Your task to perform on an android device: choose inbox layout in the gmail app Image 0: 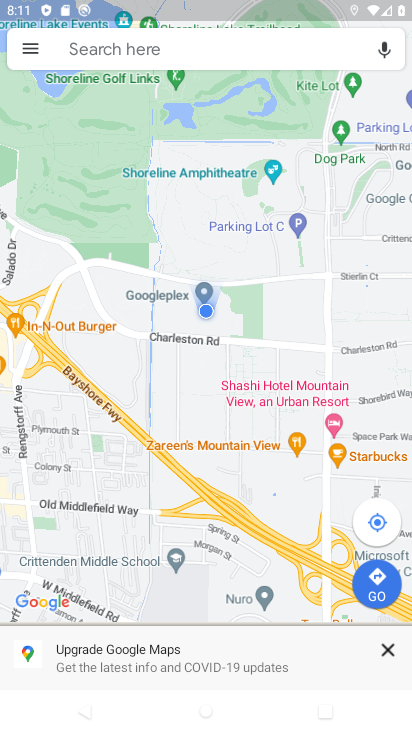
Step 0: press home button
Your task to perform on an android device: choose inbox layout in the gmail app Image 1: 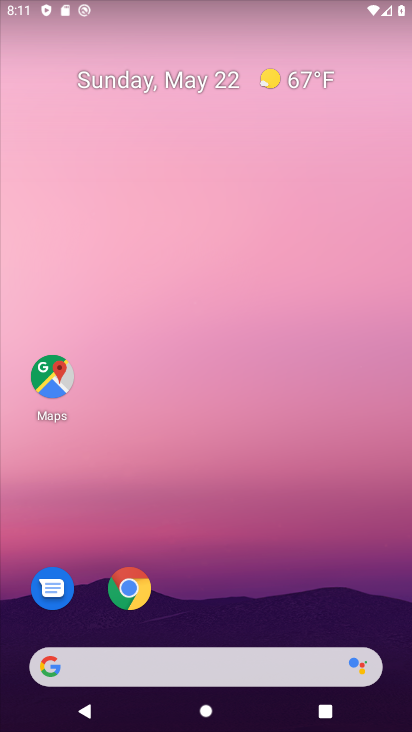
Step 1: drag from (202, 608) to (204, 178)
Your task to perform on an android device: choose inbox layout in the gmail app Image 2: 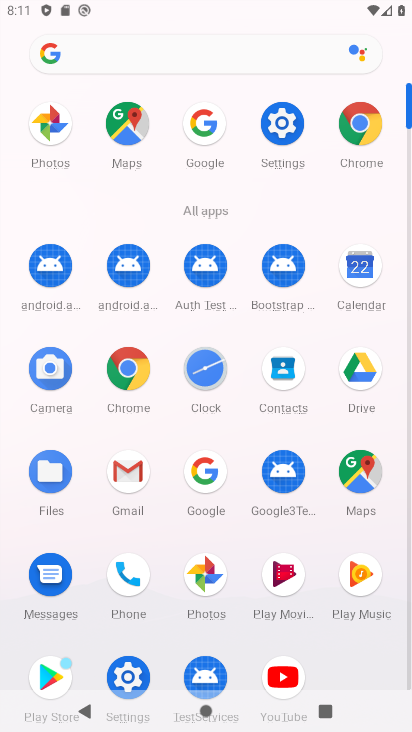
Step 2: drag from (172, 499) to (182, 288)
Your task to perform on an android device: choose inbox layout in the gmail app Image 3: 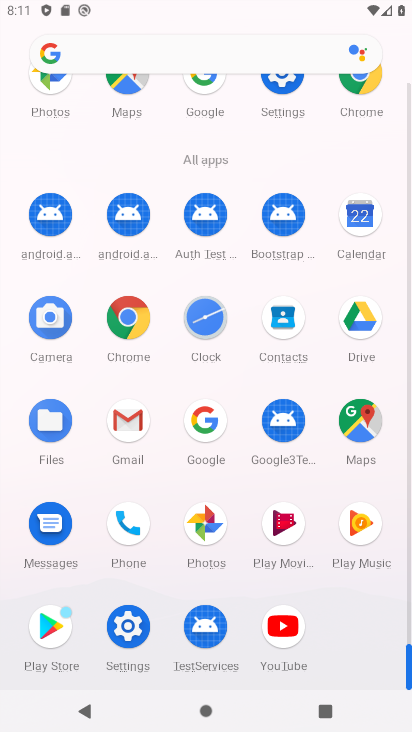
Step 3: drag from (182, 311) to (182, 482)
Your task to perform on an android device: choose inbox layout in the gmail app Image 4: 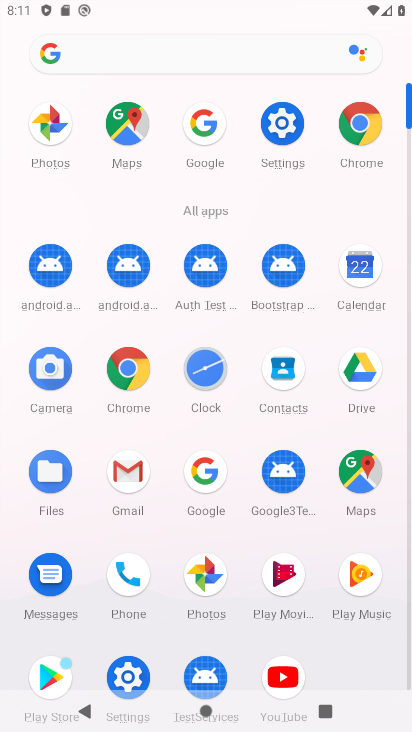
Step 4: click (133, 492)
Your task to perform on an android device: choose inbox layout in the gmail app Image 5: 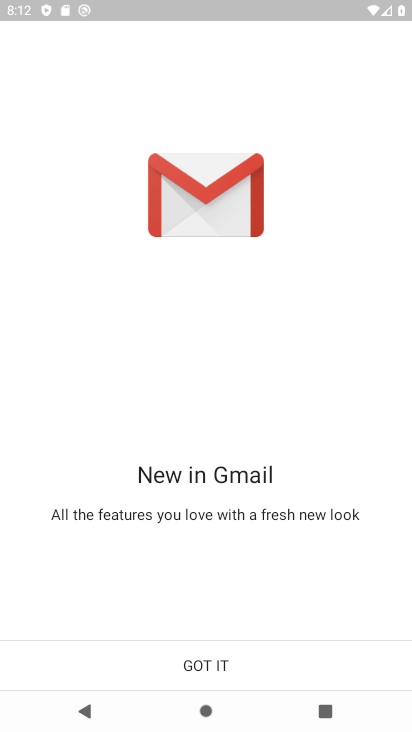
Step 5: click (200, 647)
Your task to perform on an android device: choose inbox layout in the gmail app Image 6: 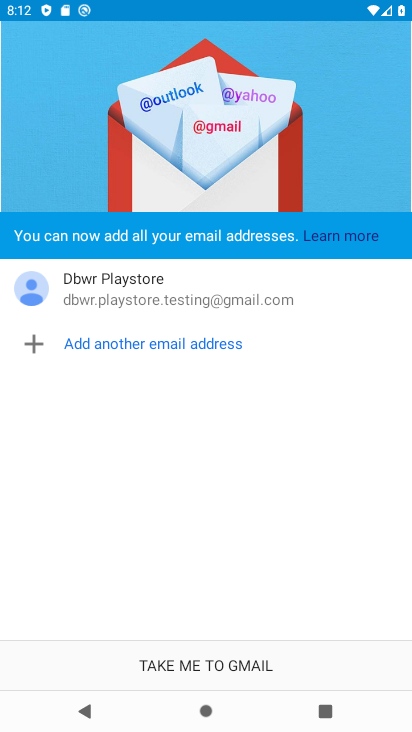
Step 6: click (123, 301)
Your task to perform on an android device: choose inbox layout in the gmail app Image 7: 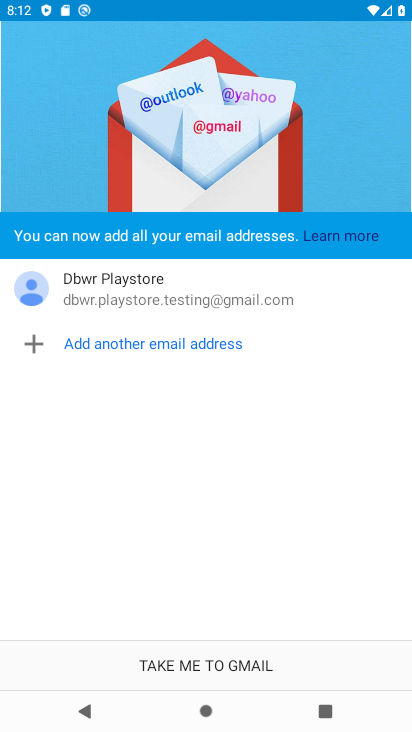
Step 7: click (208, 652)
Your task to perform on an android device: choose inbox layout in the gmail app Image 8: 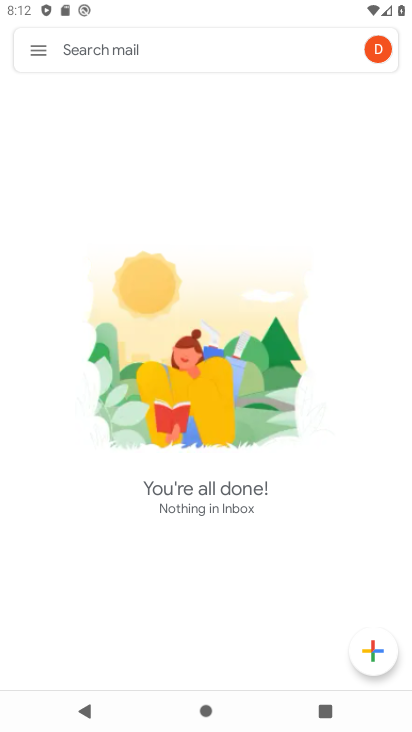
Step 8: click (33, 36)
Your task to perform on an android device: choose inbox layout in the gmail app Image 9: 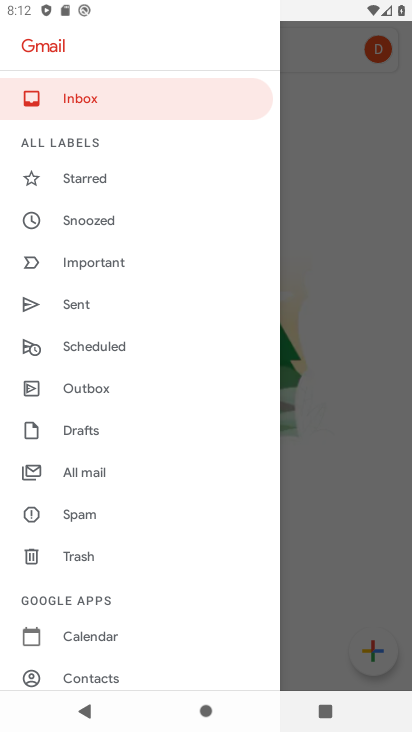
Step 9: drag from (130, 626) to (174, 217)
Your task to perform on an android device: choose inbox layout in the gmail app Image 10: 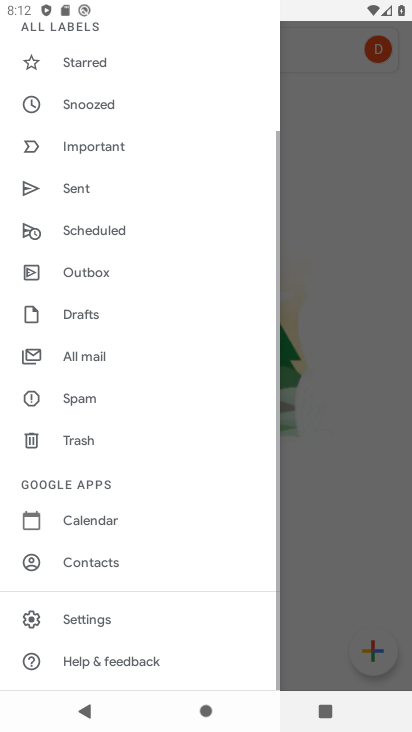
Step 10: click (96, 616)
Your task to perform on an android device: choose inbox layout in the gmail app Image 11: 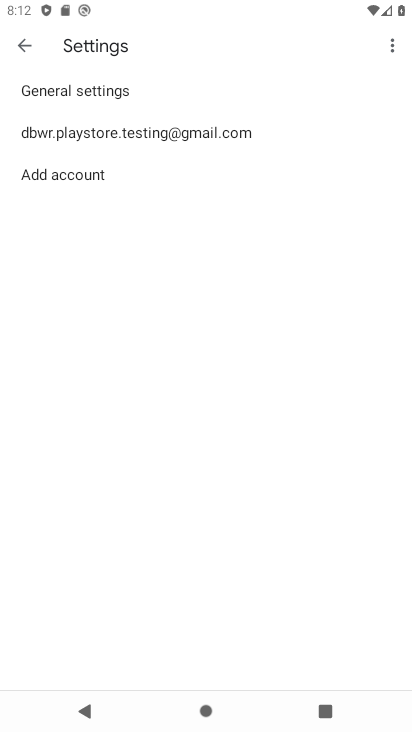
Step 11: click (113, 126)
Your task to perform on an android device: choose inbox layout in the gmail app Image 12: 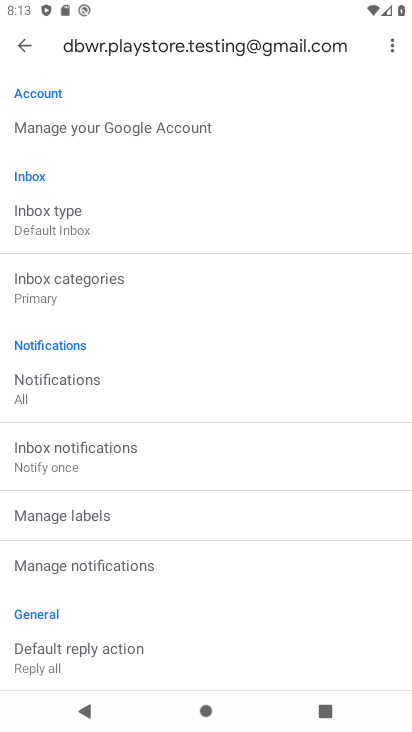
Step 12: click (110, 218)
Your task to perform on an android device: choose inbox layout in the gmail app Image 13: 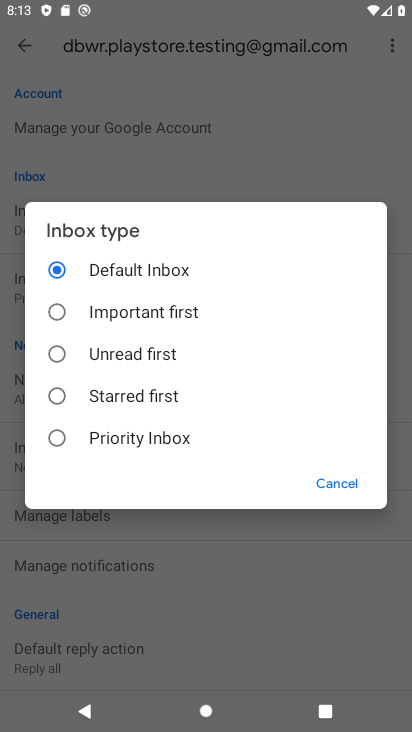
Step 13: click (63, 440)
Your task to perform on an android device: choose inbox layout in the gmail app Image 14: 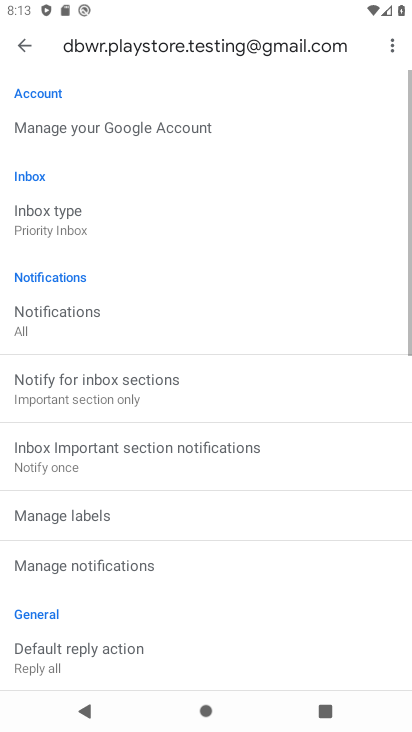
Step 14: task complete